Your task to perform on an android device: Open Wikipedia Image 0: 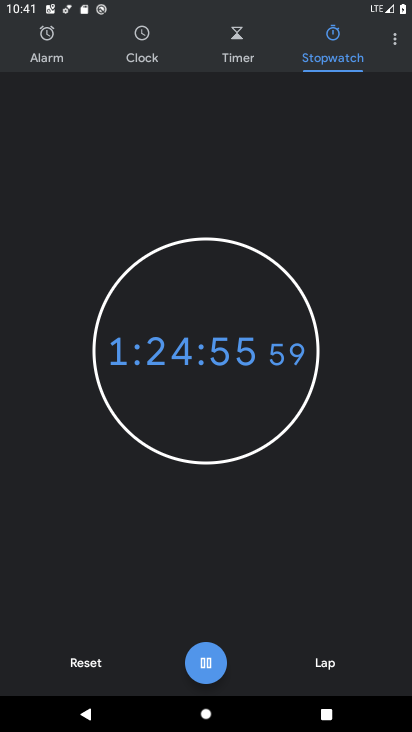
Step 0: press home button
Your task to perform on an android device: Open Wikipedia Image 1: 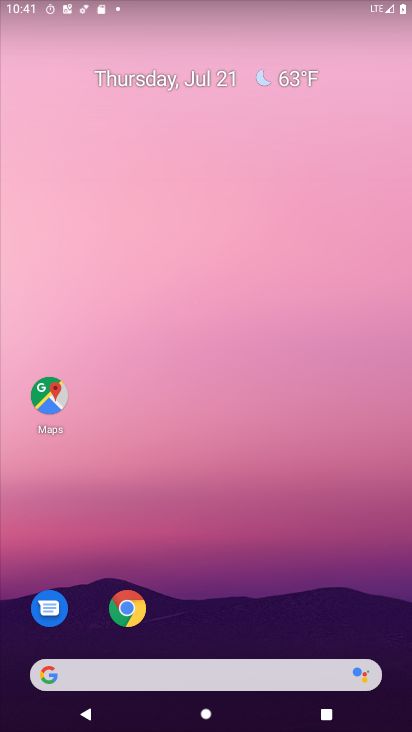
Step 1: drag from (222, 663) to (337, 116)
Your task to perform on an android device: Open Wikipedia Image 2: 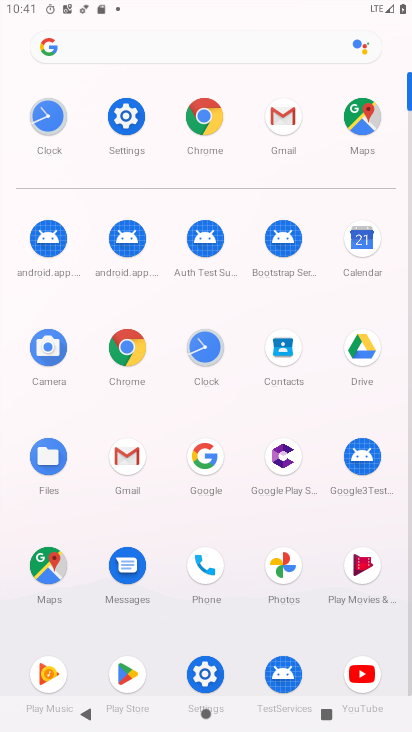
Step 2: click (201, 131)
Your task to perform on an android device: Open Wikipedia Image 3: 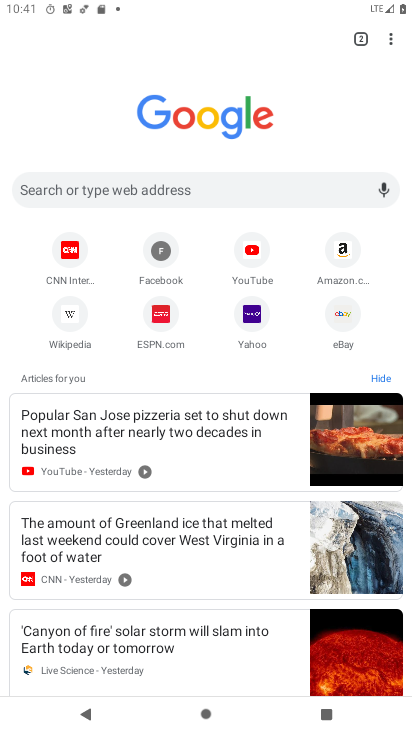
Step 3: click (72, 329)
Your task to perform on an android device: Open Wikipedia Image 4: 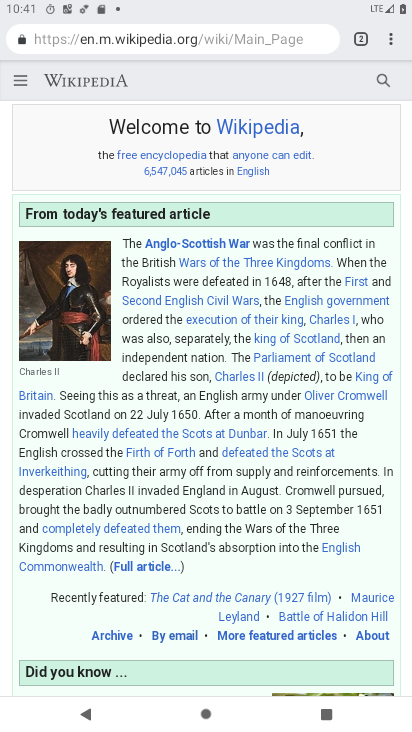
Step 4: task complete